Your task to perform on an android device: Go to Yahoo.com Image 0: 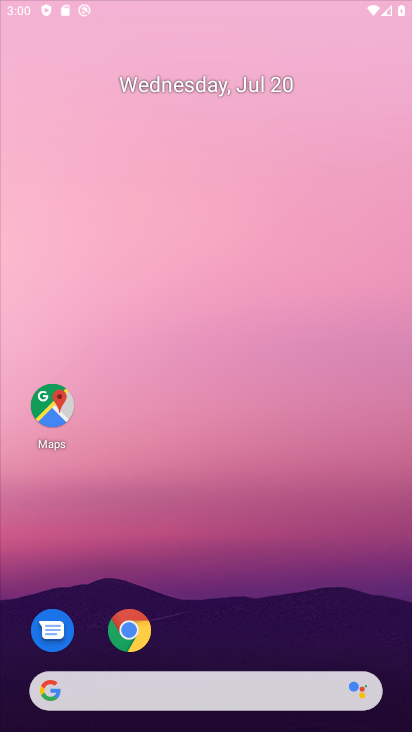
Step 0: press home button
Your task to perform on an android device: Go to Yahoo.com Image 1: 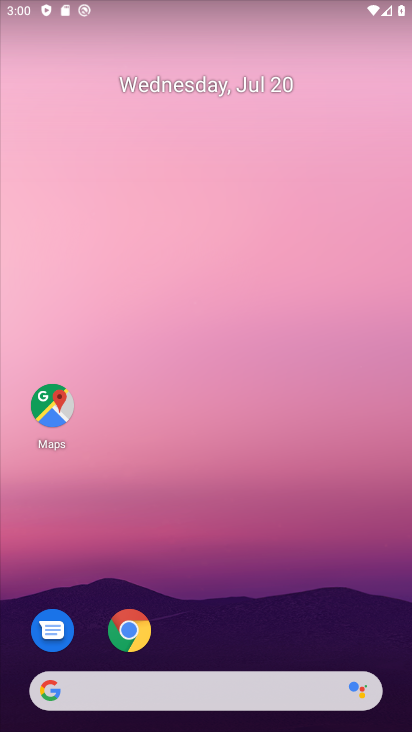
Step 1: click (61, 701)
Your task to perform on an android device: Go to Yahoo.com Image 2: 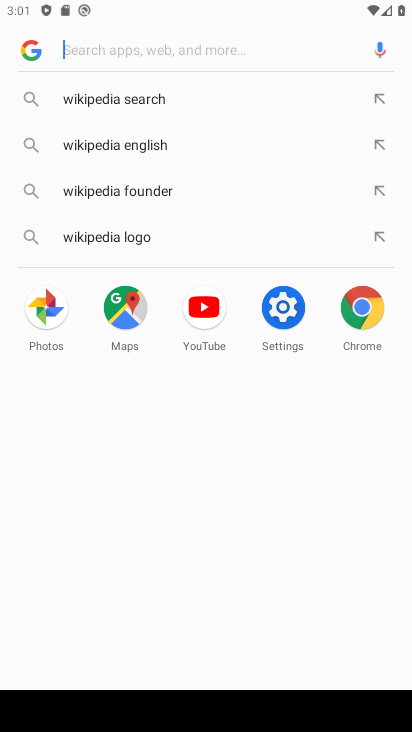
Step 2: type "Yahoo.com"
Your task to perform on an android device: Go to Yahoo.com Image 3: 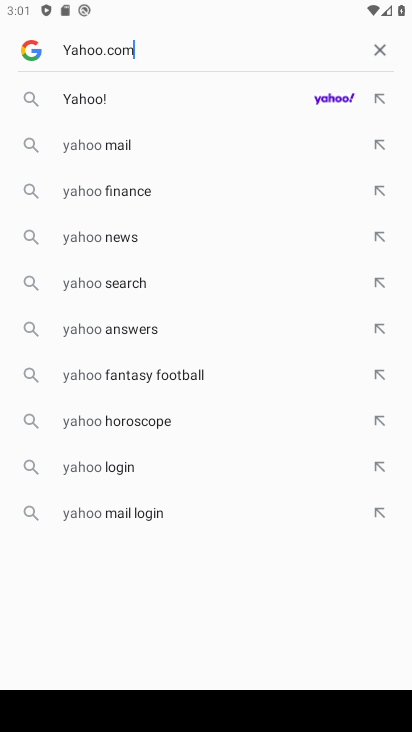
Step 3: press enter
Your task to perform on an android device: Go to Yahoo.com Image 4: 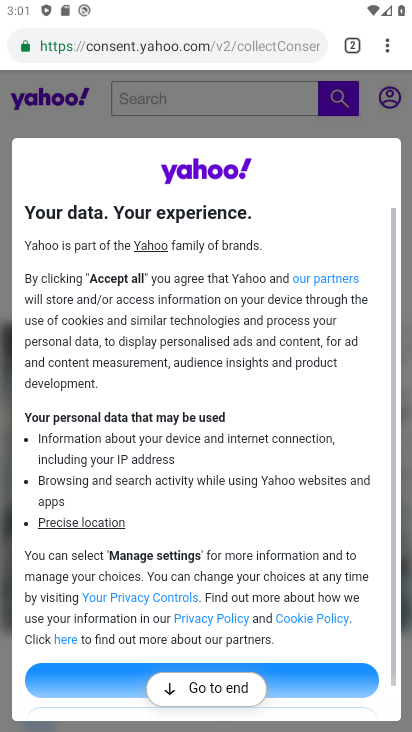
Step 4: click (190, 689)
Your task to perform on an android device: Go to Yahoo.com Image 5: 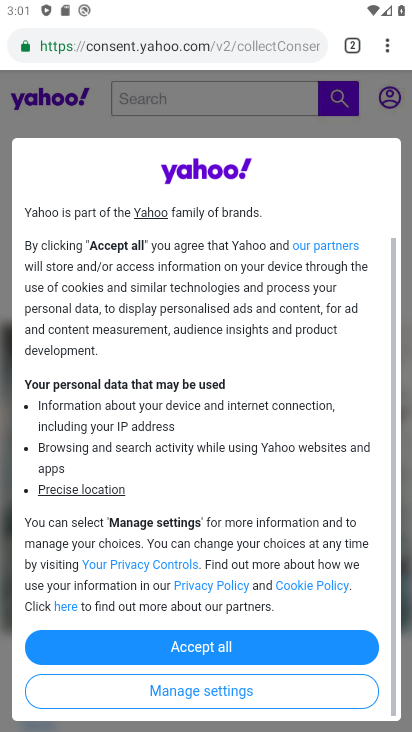
Step 5: click (161, 658)
Your task to perform on an android device: Go to Yahoo.com Image 6: 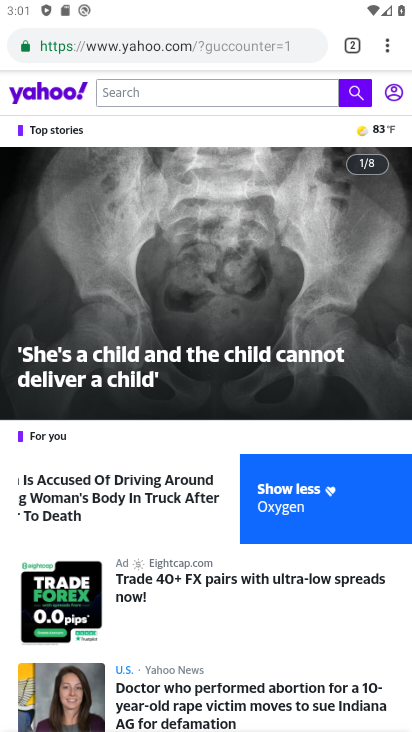
Step 6: task complete